Your task to perform on an android device: turn off wifi Image 0: 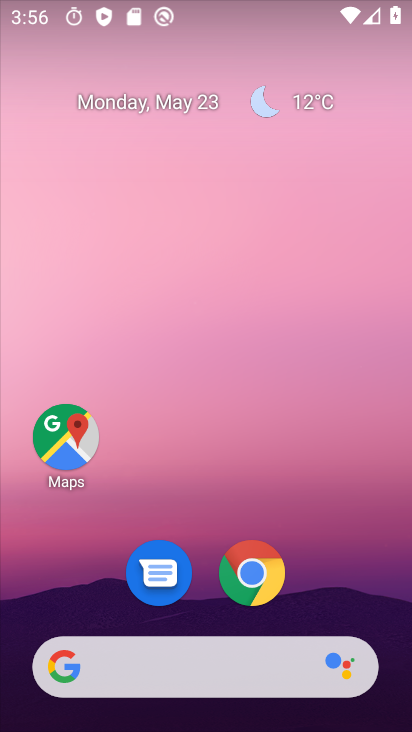
Step 0: press home button
Your task to perform on an android device: turn off wifi Image 1: 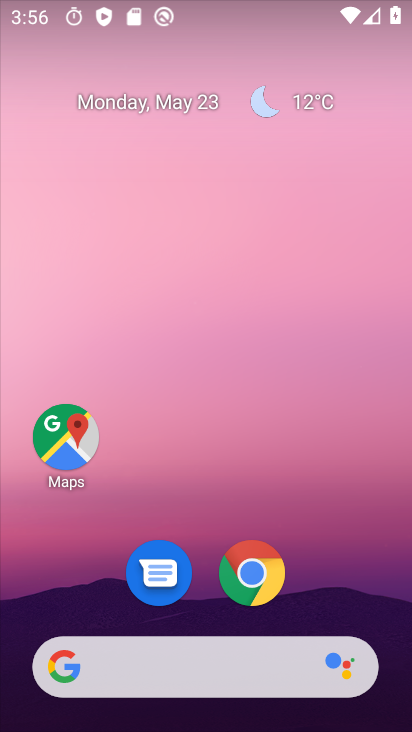
Step 1: drag from (126, 0) to (91, 350)
Your task to perform on an android device: turn off wifi Image 2: 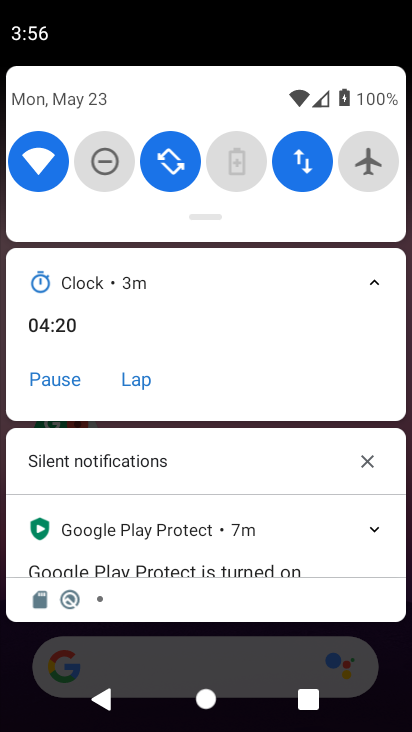
Step 2: click (47, 152)
Your task to perform on an android device: turn off wifi Image 3: 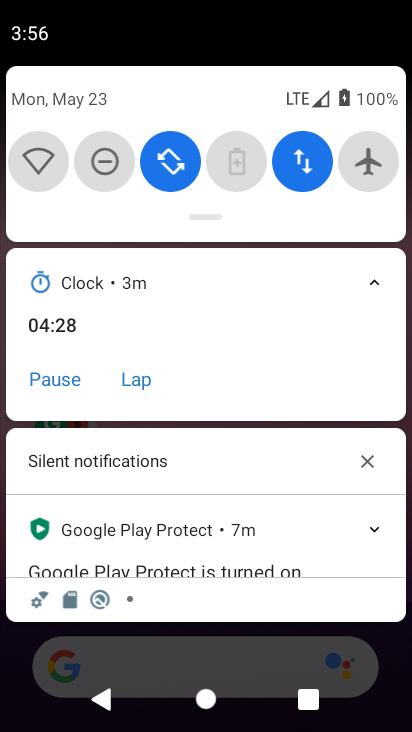
Step 3: task complete